Your task to perform on an android device: Go to Google Image 0: 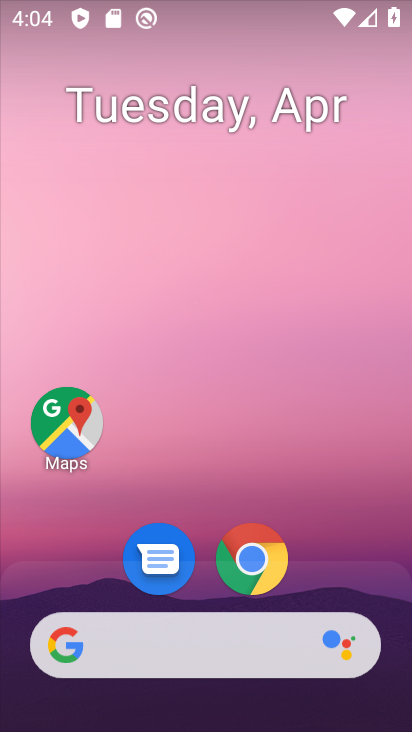
Step 0: click (298, 102)
Your task to perform on an android device: Go to Google Image 1: 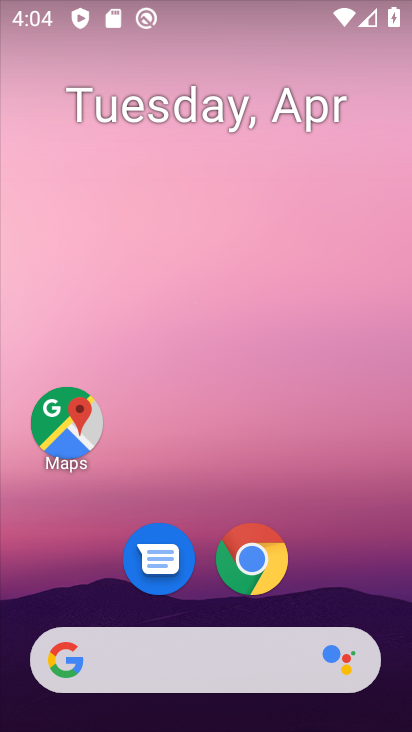
Step 1: drag from (185, 598) to (361, 73)
Your task to perform on an android device: Go to Google Image 2: 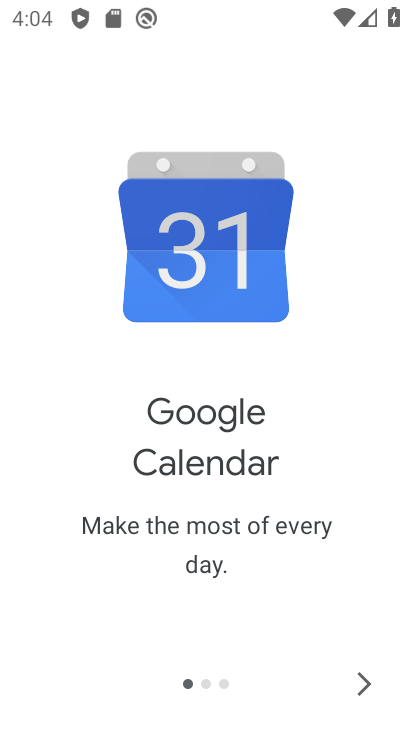
Step 2: press back button
Your task to perform on an android device: Go to Google Image 3: 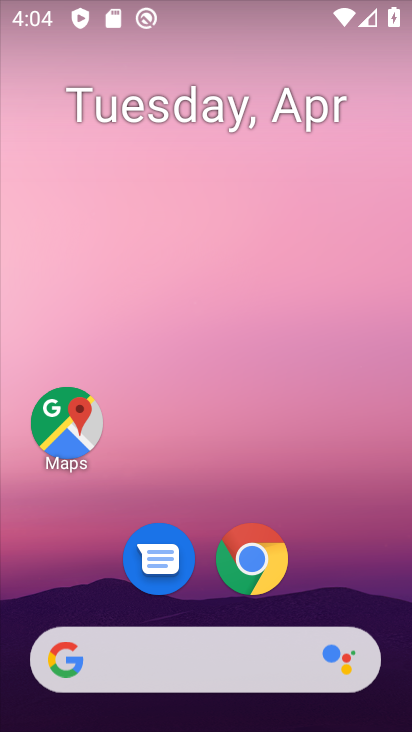
Step 3: drag from (366, 458) to (411, 476)
Your task to perform on an android device: Go to Google Image 4: 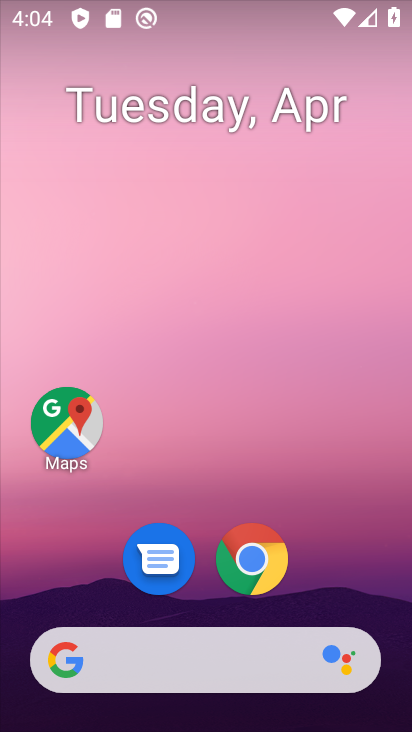
Step 4: drag from (323, 614) to (410, 224)
Your task to perform on an android device: Go to Google Image 5: 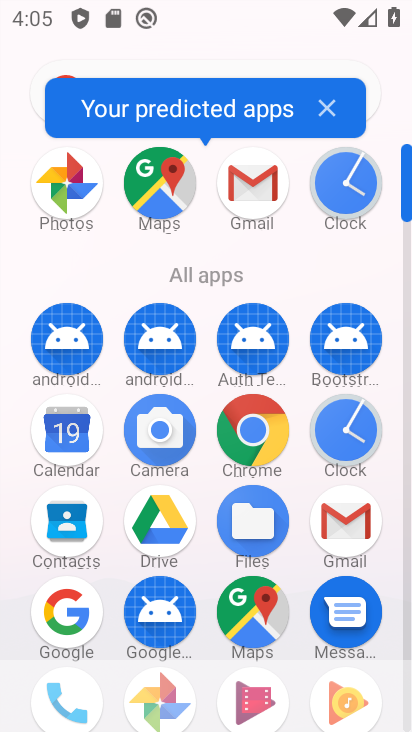
Step 5: click (73, 620)
Your task to perform on an android device: Go to Google Image 6: 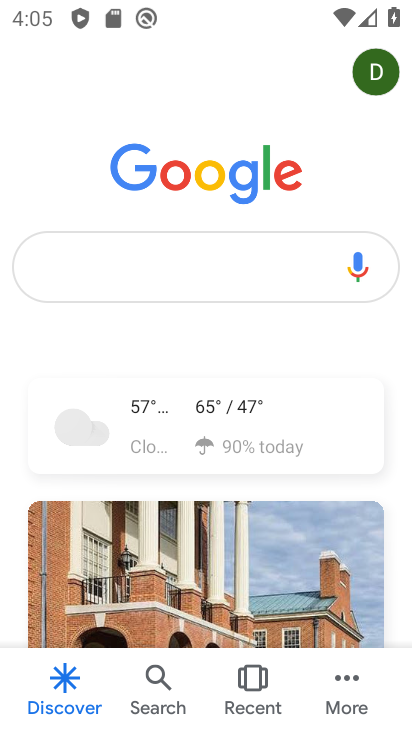
Step 6: task complete